Your task to perform on an android device: Go to display settings Image 0: 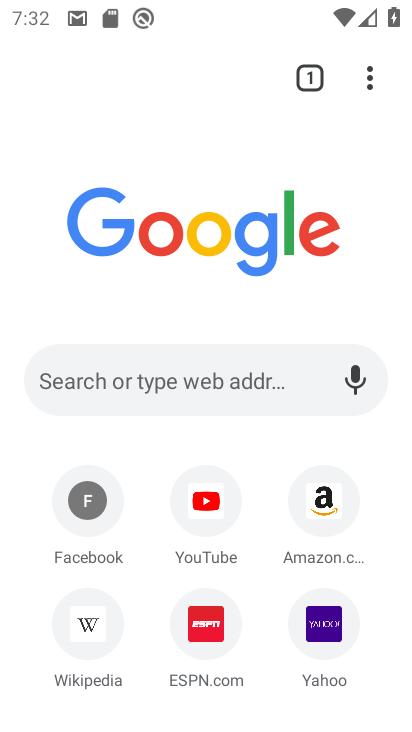
Step 0: press home button
Your task to perform on an android device: Go to display settings Image 1: 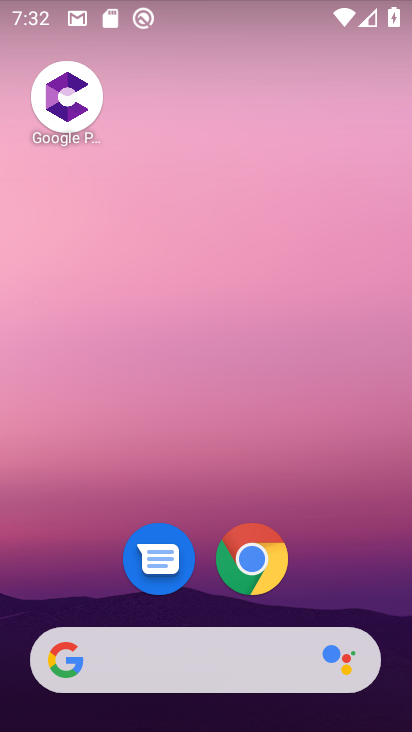
Step 1: drag from (384, 605) to (397, 223)
Your task to perform on an android device: Go to display settings Image 2: 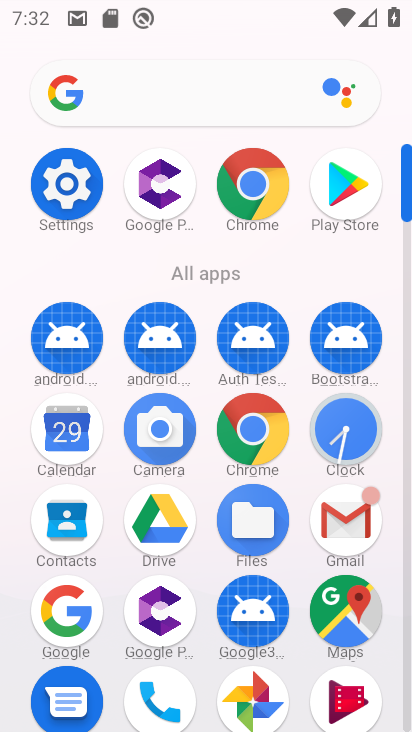
Step 2: click (80, 199)
Your task to perform on an android device: Go to display settings Image 3: 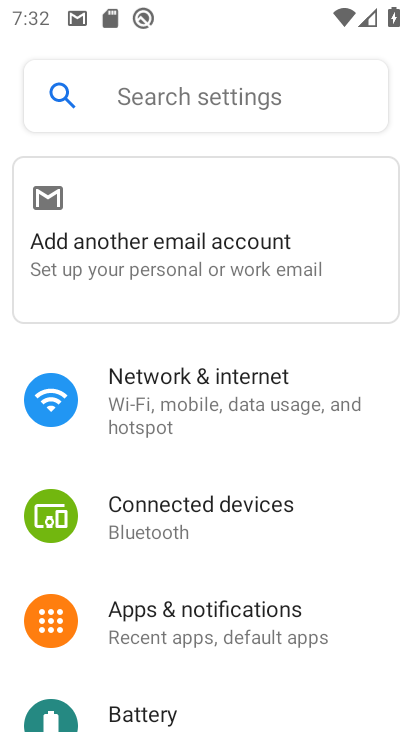
Step 3: drag from (367, 540) to (383, 477)
Your task to perform on an android device: Go to display settings Image 4: 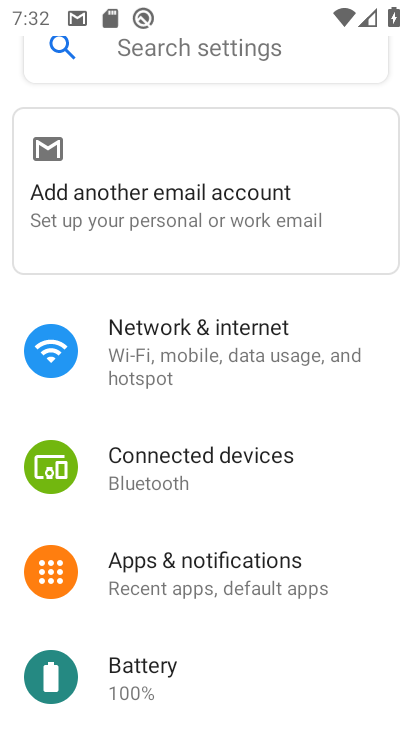
Step 4: drag from (371, 523) to (370, 471)
Your task to perform on an android device: Go to display settings Image 5: 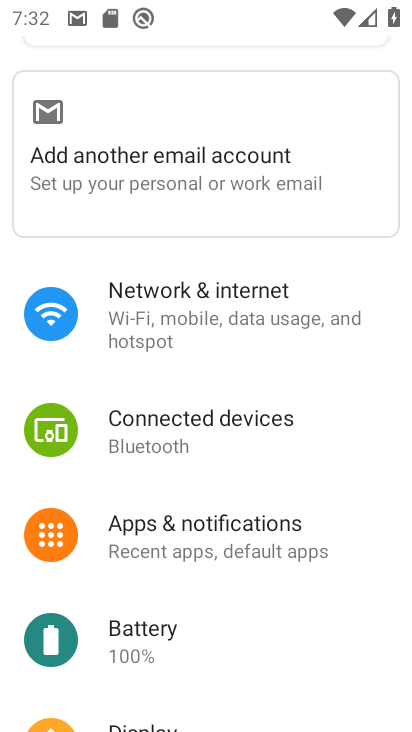
Step 5: drag from (371, 534) to (376, 485)
Your task to perform on an android device: Go to display settings Image 6: 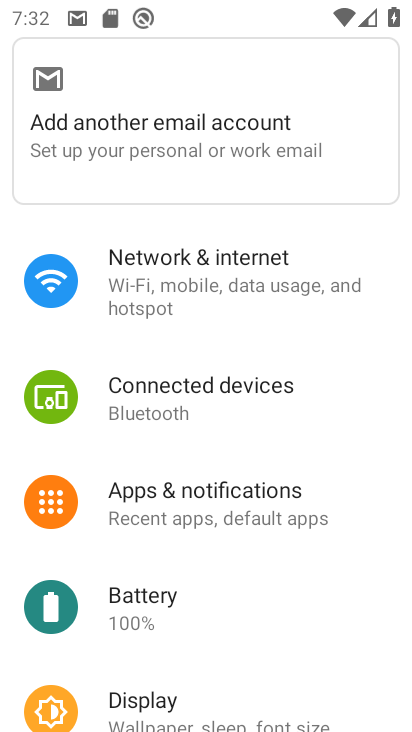
Step 6: drag from (363, 553) to (370, 466)
Your task to perform on an android device: Go to display settings Image 7: 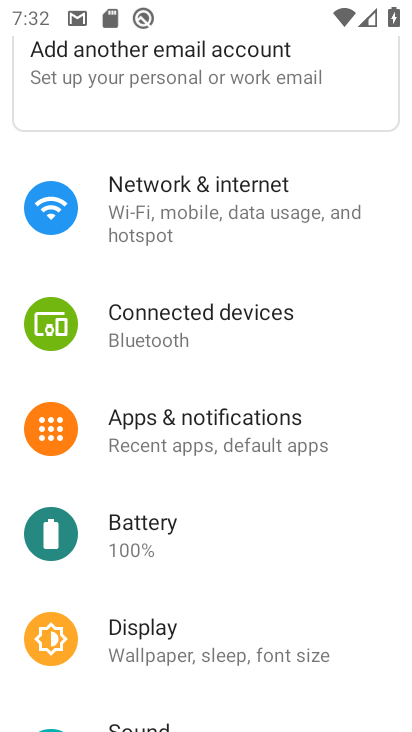
Step 7: drag from (359, 531) to (370, 441)
Your task to perform on an android device: Go to display settings Image 8: 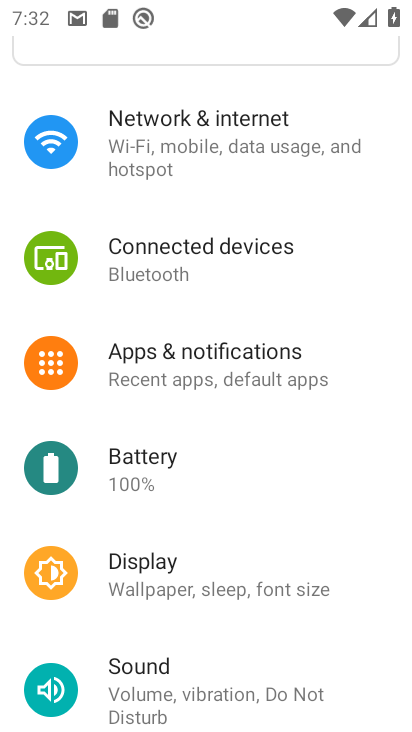
Step 8: drag from (359, 508) to (357, 442)
Your task to perform on an android device: Go to display settings Image 9: 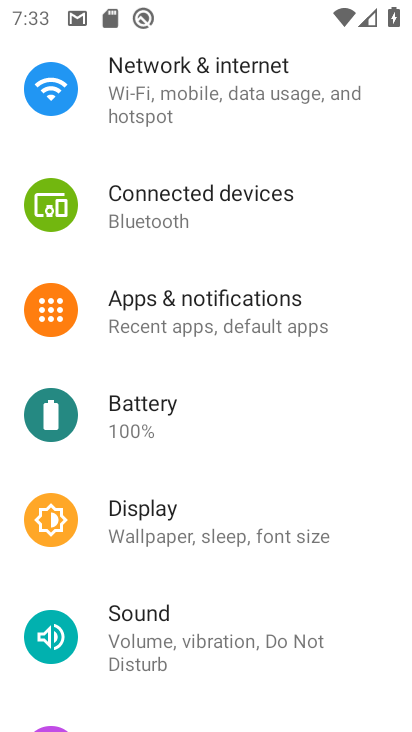
Step 9: drag from (362, 535) to (371, 465)
Your task to perform on an android device: Go to display settings Image 10: 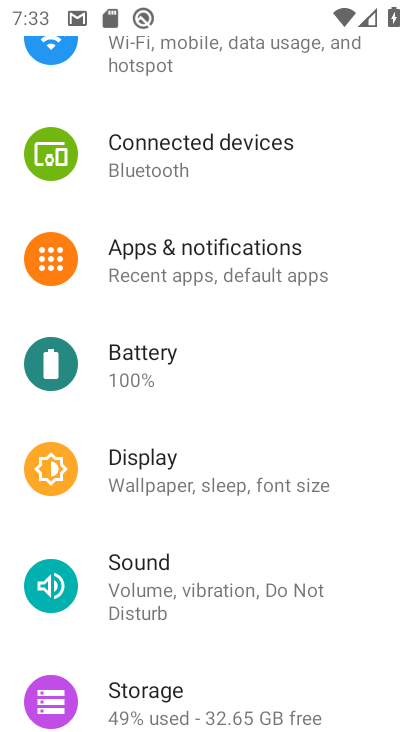
Step 10: drag from (356, 557) to (369, 492)
Your task to perform on an android device: Go to display settings Image 11: 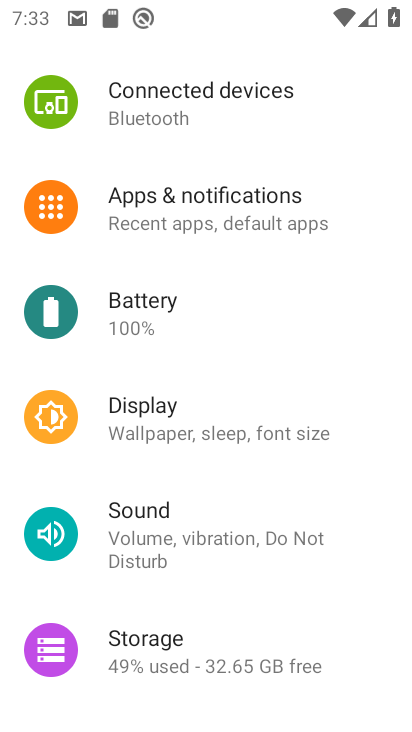
Step 11: drag from (352, 554) to (367, 471)
Your task to perform on an android device: Go to display settings Image 12: 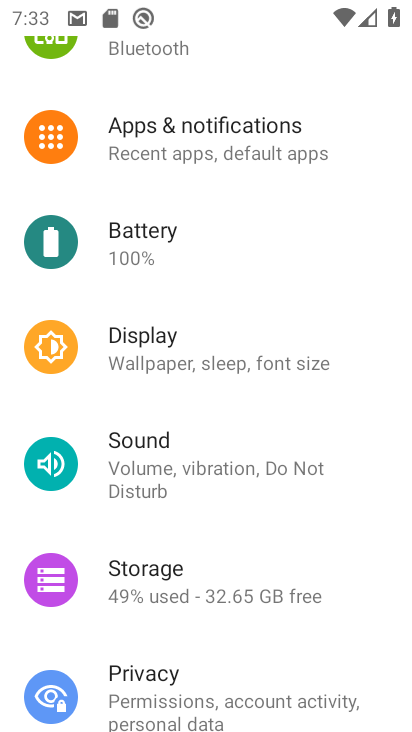
Step 12: drag from (362, 532) to (377, 486)
Your task to perform on an android device: Go to display settings Image 13: 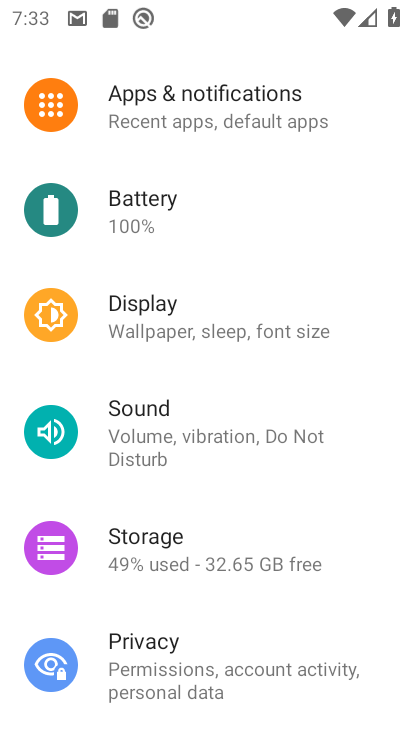
Step 13: click (307, 320)
Your task to perform on an android device: Go to display settings Image 14: 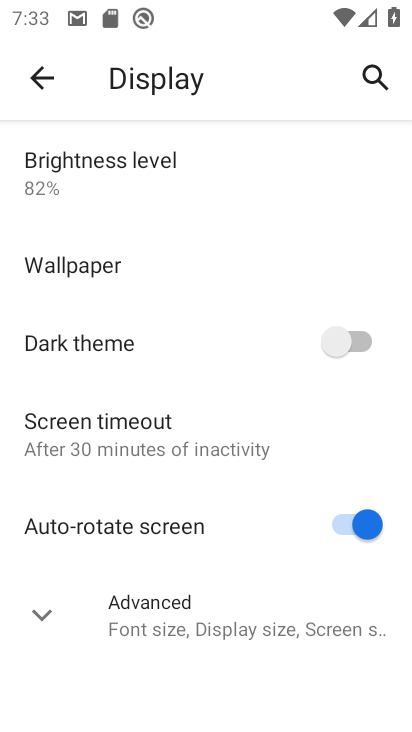
Step 14: task complete